Your task to perform on an android device: turn off location history Image 0: 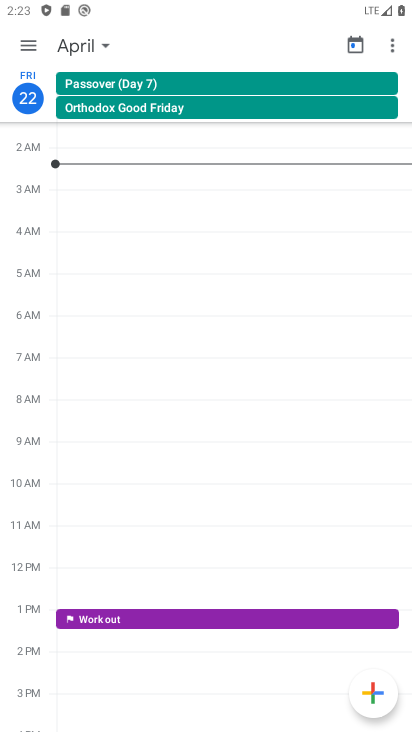
Step 0: press home button
Your task to perform on an android device: turn off location history Image 1: 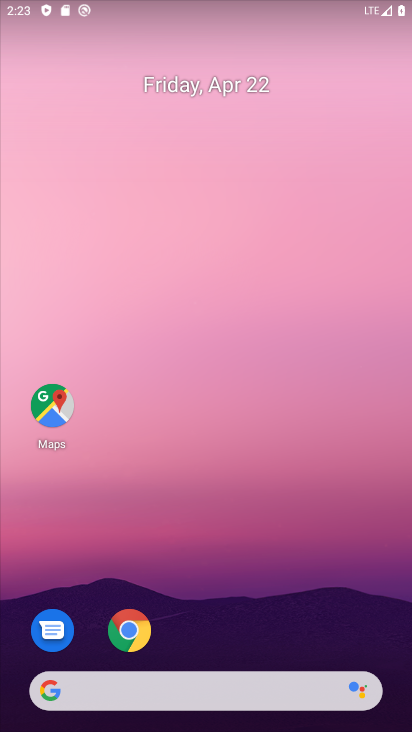
Step 1: drag from (338, 601) to (317, 147)
Your task to perform on an android device: turn off location history Image 2: 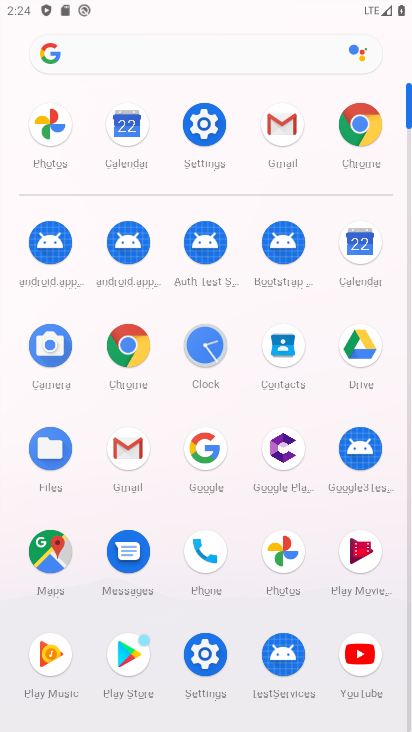
Step 2: click (199, 120)
Your task to perform on an android device: turn off location history Image 3: 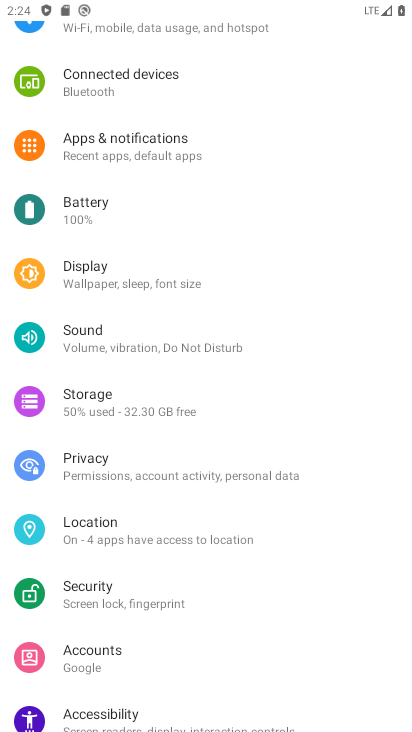
Step 3: click (122, 547)
Your task to perform on an android device: turn off location history Image 4: 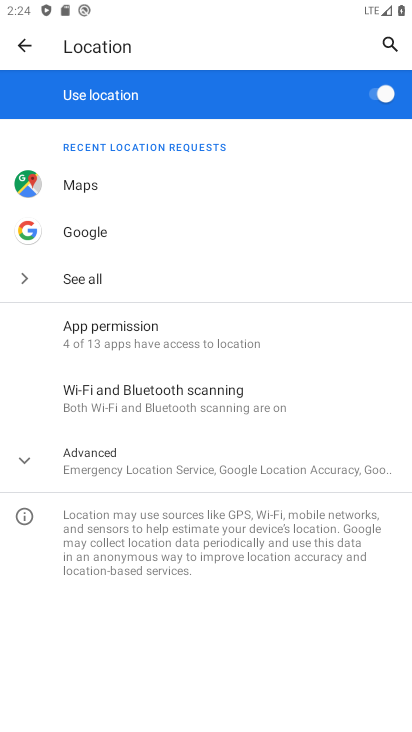
Step 4: click (129, 456)
Your task to perform on an android device: turn off location history Image 5: 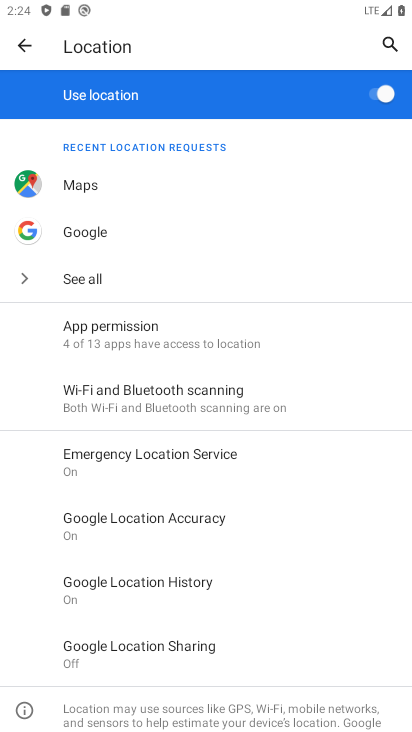
Step 5: click (114, 585)
Your task to perform on an android device: turn off location history Image 6: 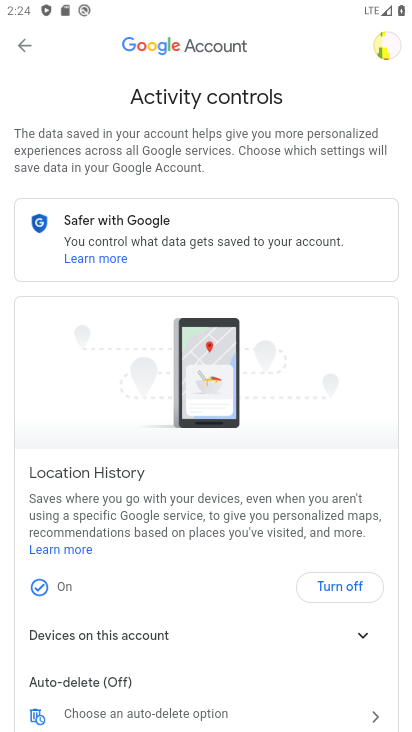
Step 6: drag from (218, 589) to (304, 393)
Your task to perform on an android device: turn off location history Image 7: 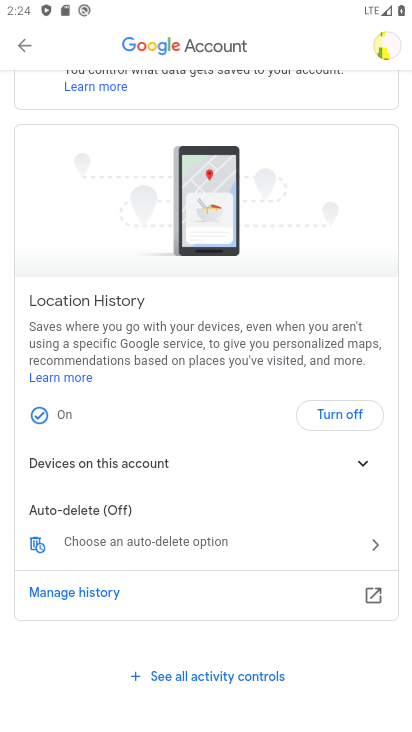
Step 7: click (189, 599)
Your task to perform on an android device: turn off location history Image 8: 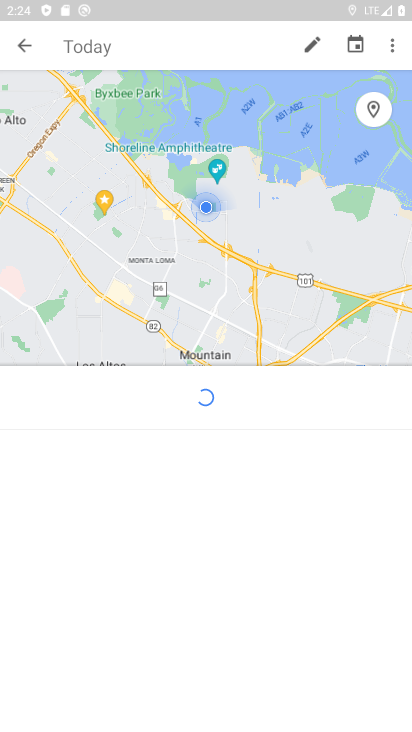
Step 8: drag from (207, 462) to (255, 286)
Your task to perform on an android device: turn off location history Image 9: 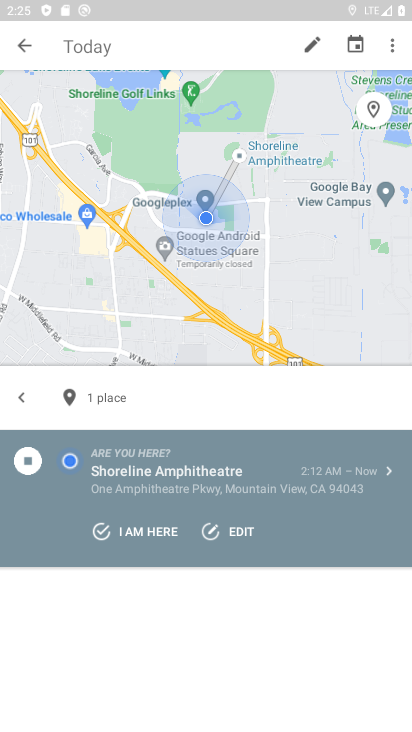
Step 9: click (390, 49)
Your task to perform on an android device: turn off location history Image 10: 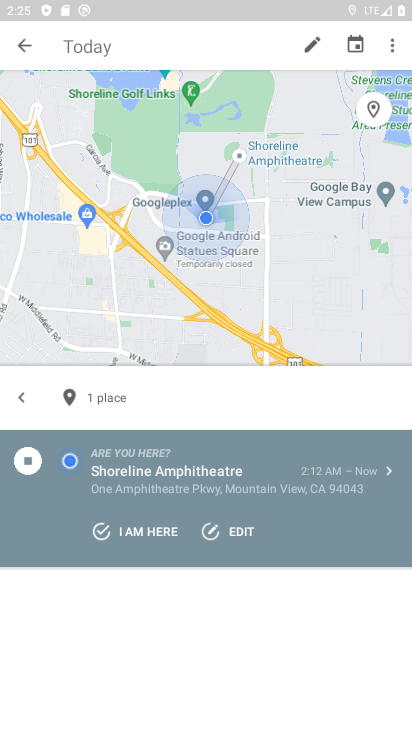
Step 10: click (393, 57)
Your task to perform on an android device: turn off location history Image 11: 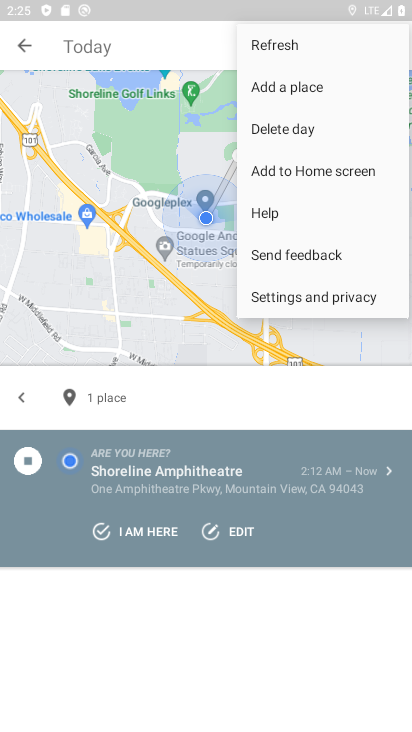
Step 11: click (281, 293)
Your task to perform on an android device: turn off location history Image 12: 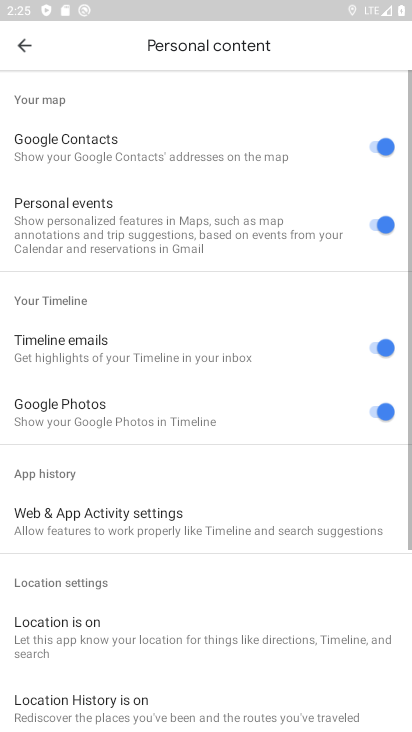
Step 12: drag from (196, 606) to (245, 334)
Your task to perform on an android device: turn off location history Image 13: 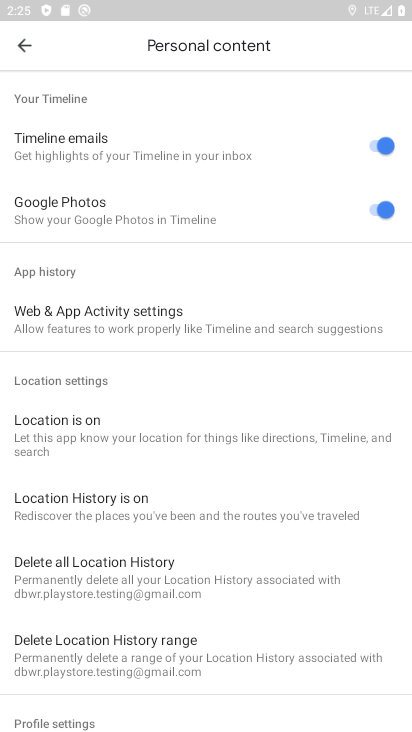
Step 13: click (174, 571)
Your task to perform on an android device: turn off location history Image 14: 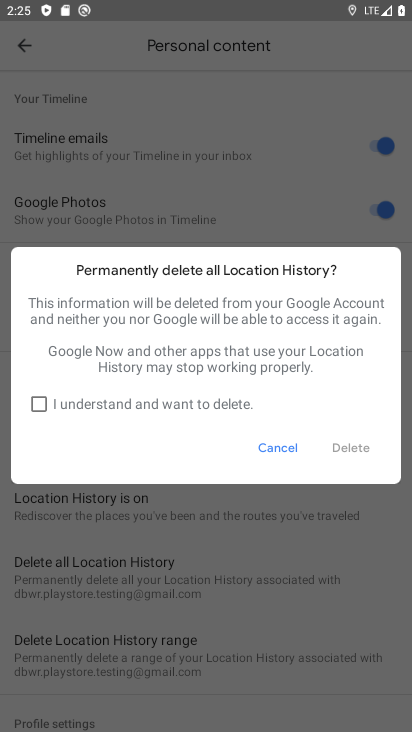
Step 14: click (34, 405)
Your task to perform on an android device: turn off location history Image 15: 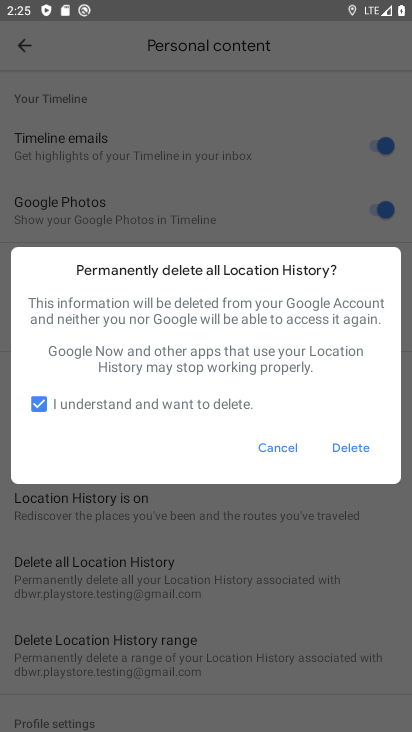
Step 15: click (353, 437)
Your task to perform on an android device: turn off location history Image 16: 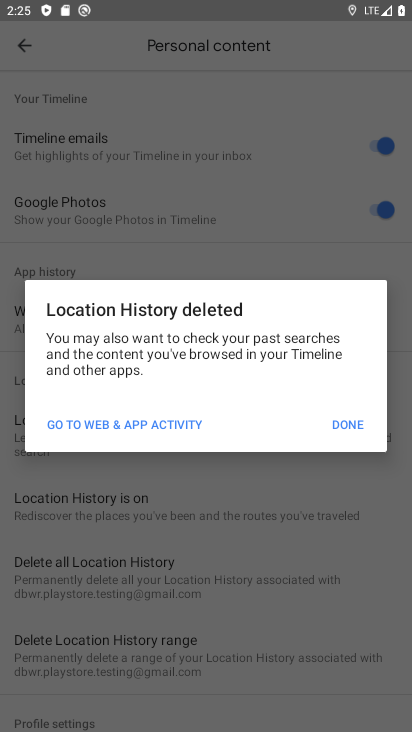
Step 16: click (343, 428)
Your task to perform on an android device: turn off location history Image 17: 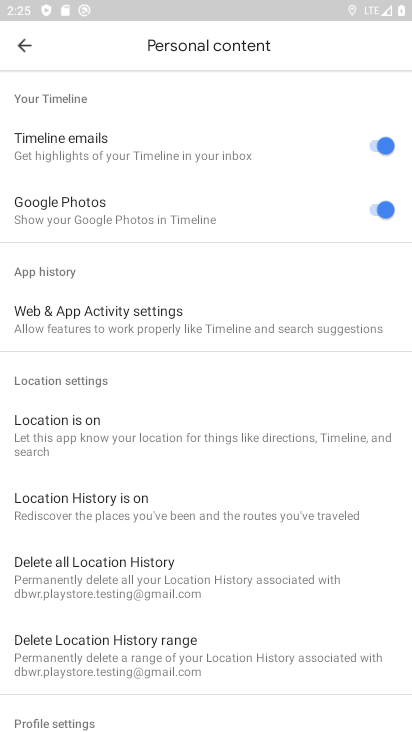
Step 17: task complete